Your task to perform on an android device: toggle show notifications on the lock screen Image 0: 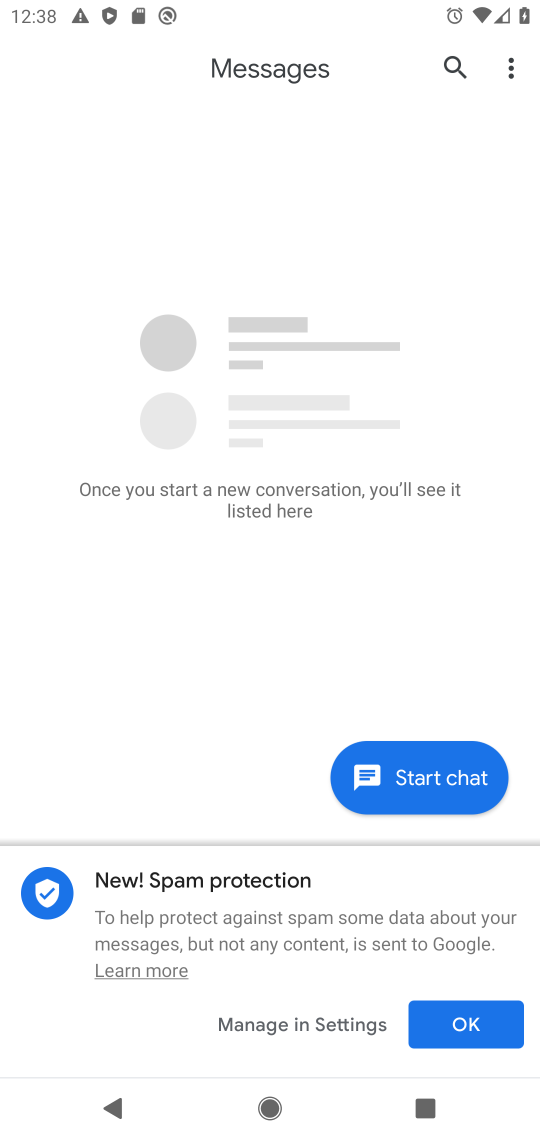
Step 0: press home button
Your task to perform on an android device: toggle show notifications on the lock screen Image 1: 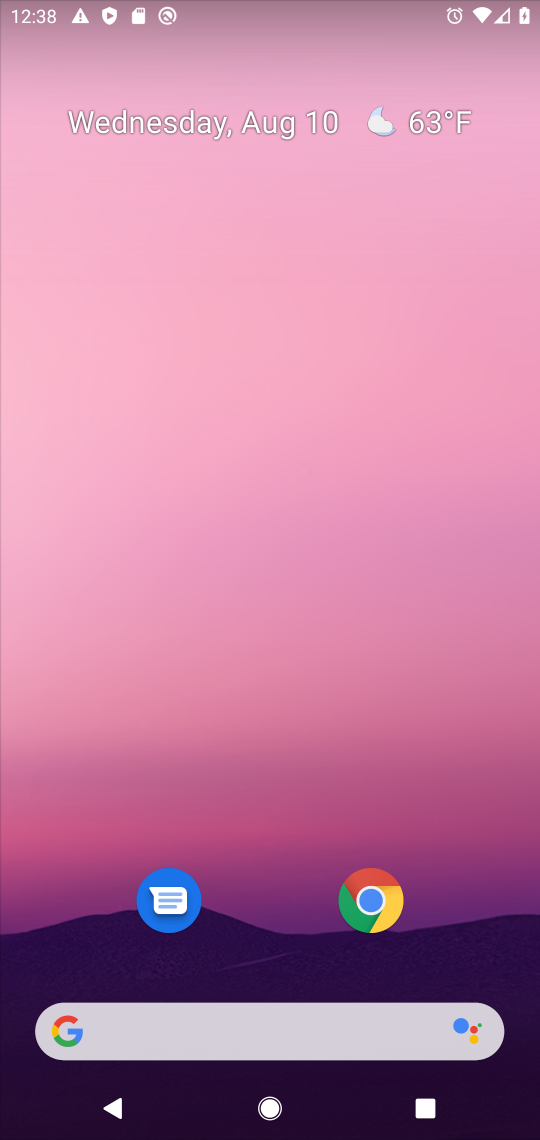
Step 1: drag from (288, 820) to (326, 17)
Your task to perform on an android device: toggle show notifications on the lock screen Image 2: 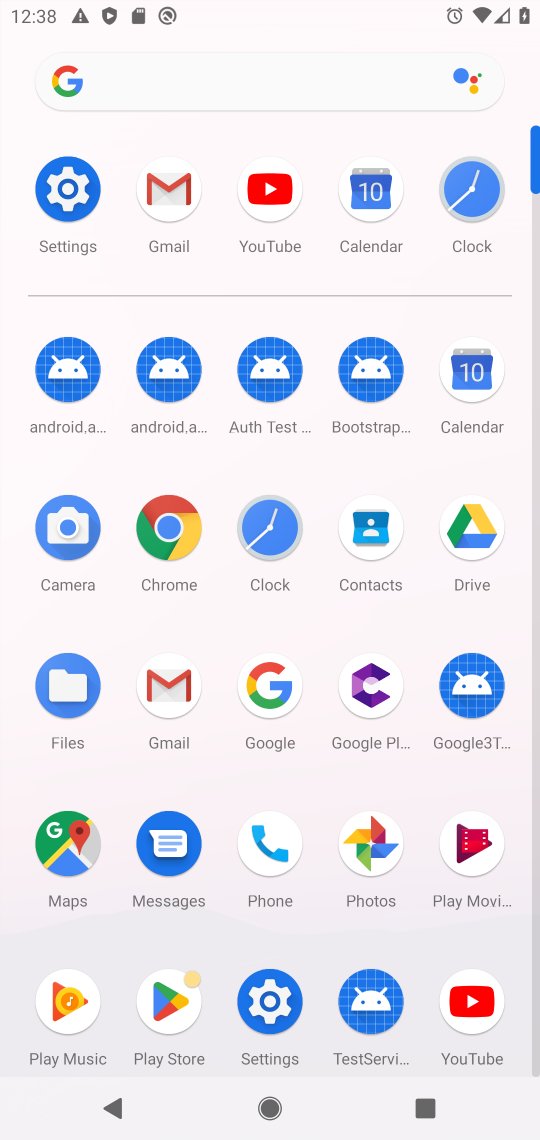
Step 2: click (67, 182)
Your task to perform on an android device: toggle show notifications on the lock screen Image 3: 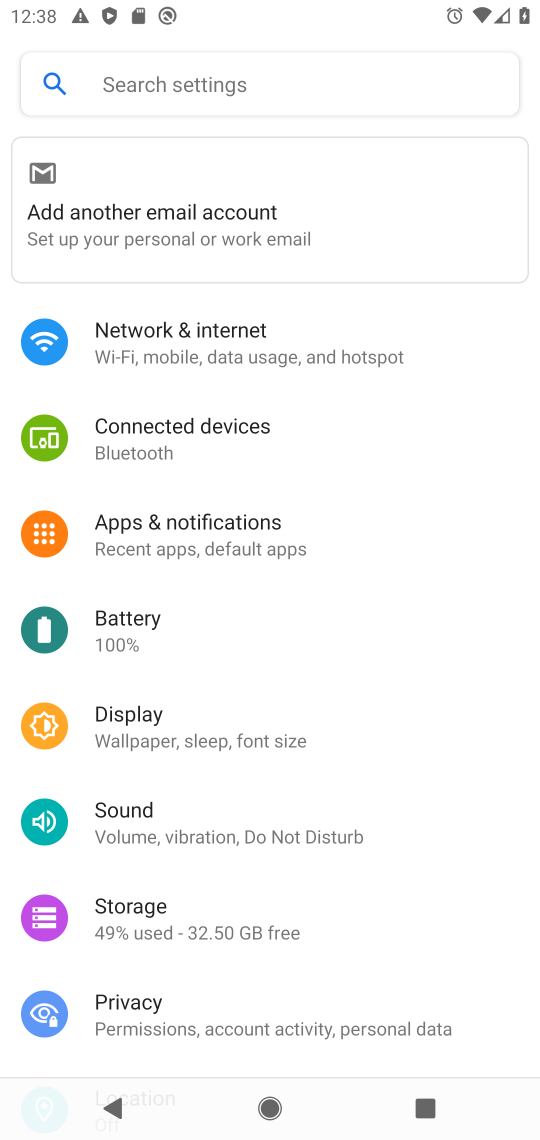
Step 3: click (261, 536)
Your task to perform on an android device: toggle show notifications on the lock screen Image 4: 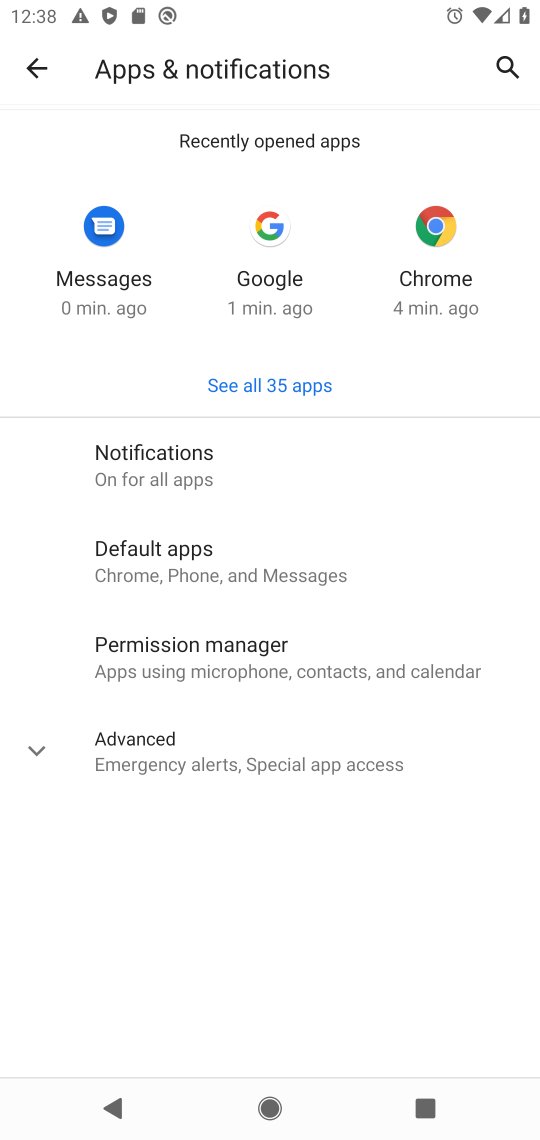
Step 4: click (192, 470)
Your task to perform on an android device: toggle show notifications on the lock screen Image 5: 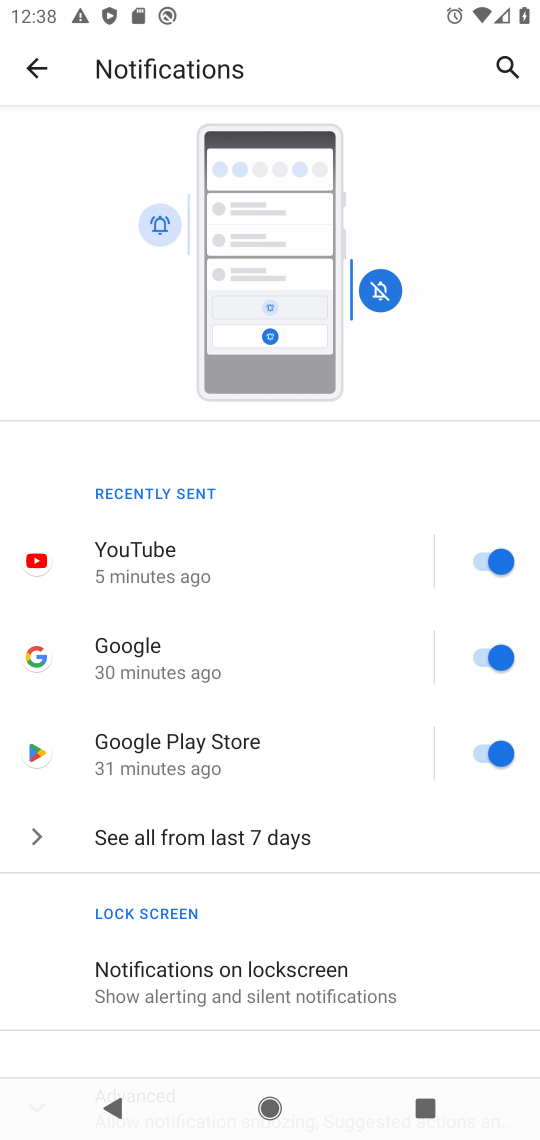
Step 5: click (315, 987)
Your task to perform on an android device: toggle show notifications on the lock screen Image 6: 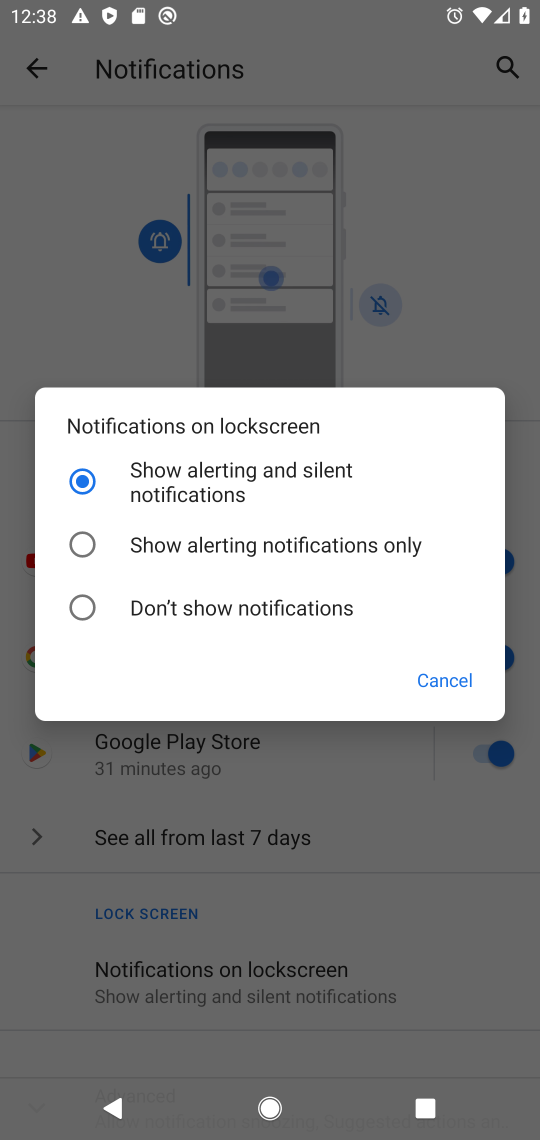
Step 6: click (84, 611)
Your task to perform on an android device: toggle show notifications on the lock screen Image 7: 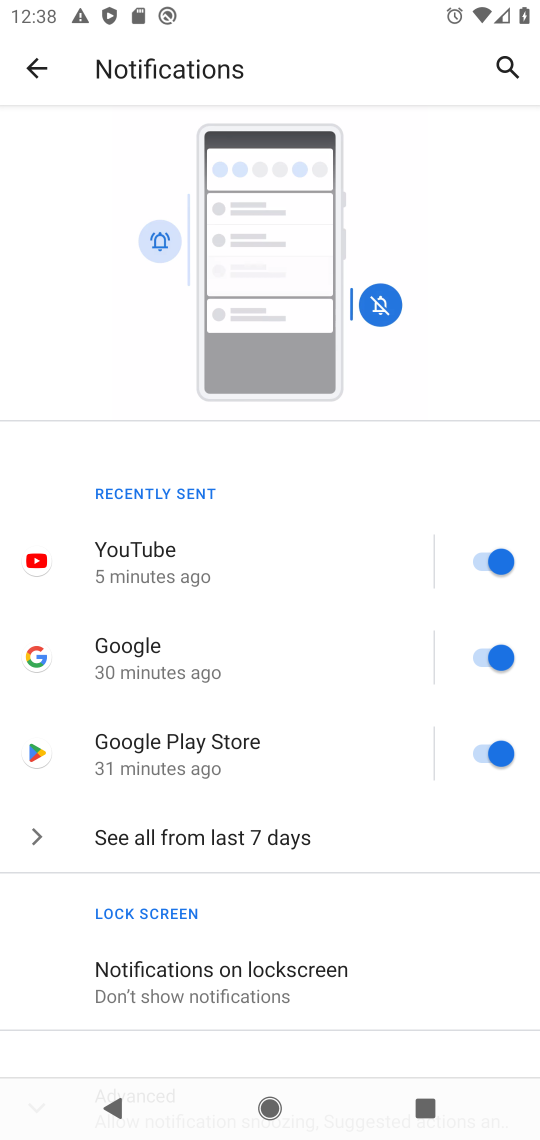
Step 7: task complete